Your task to perform on an android device: Search for apple airpods pro on target, select the first entry, add it to the cart, then select checkout. Image 0: 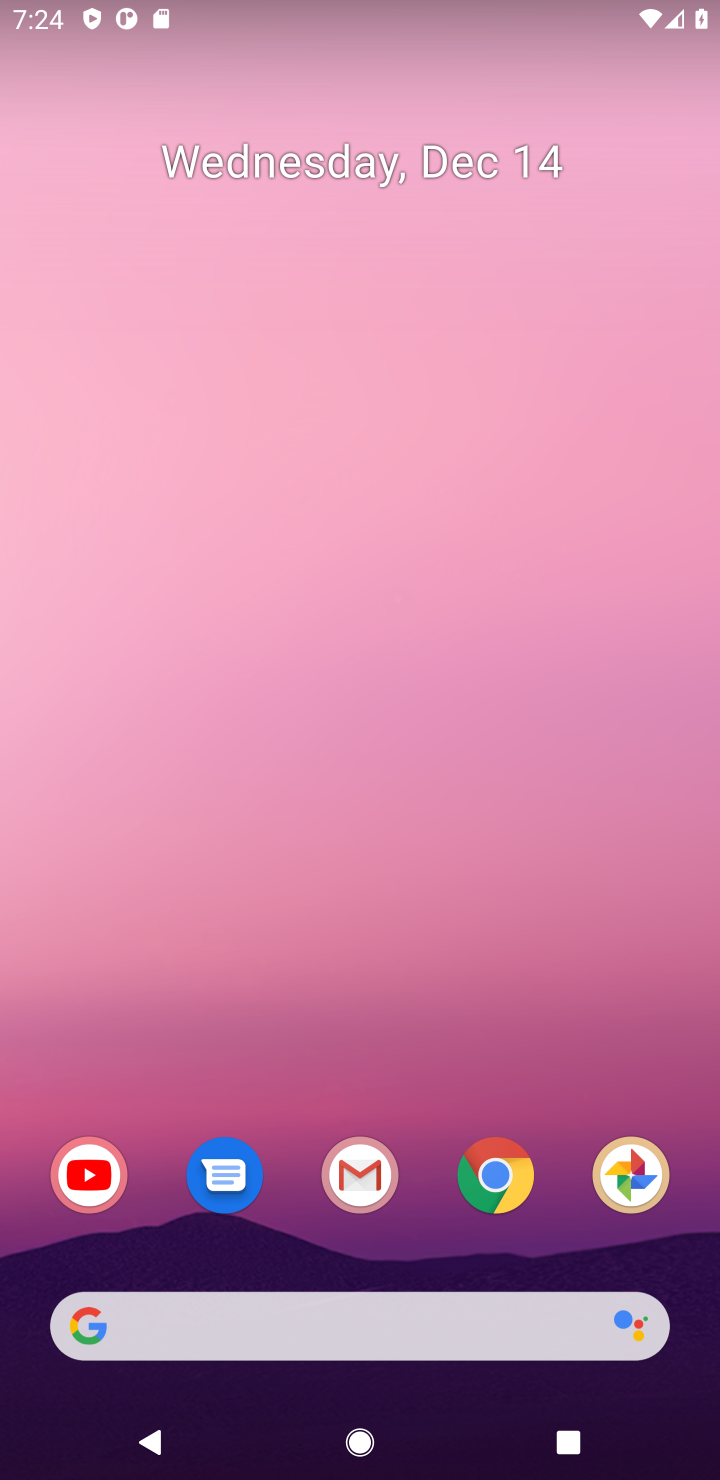
Step 0: click (503, 1188)
Your task to perform on an android device: Search for apple airpods pro on target, select the first entry, add it to the cart, then select checkout. Image 1: 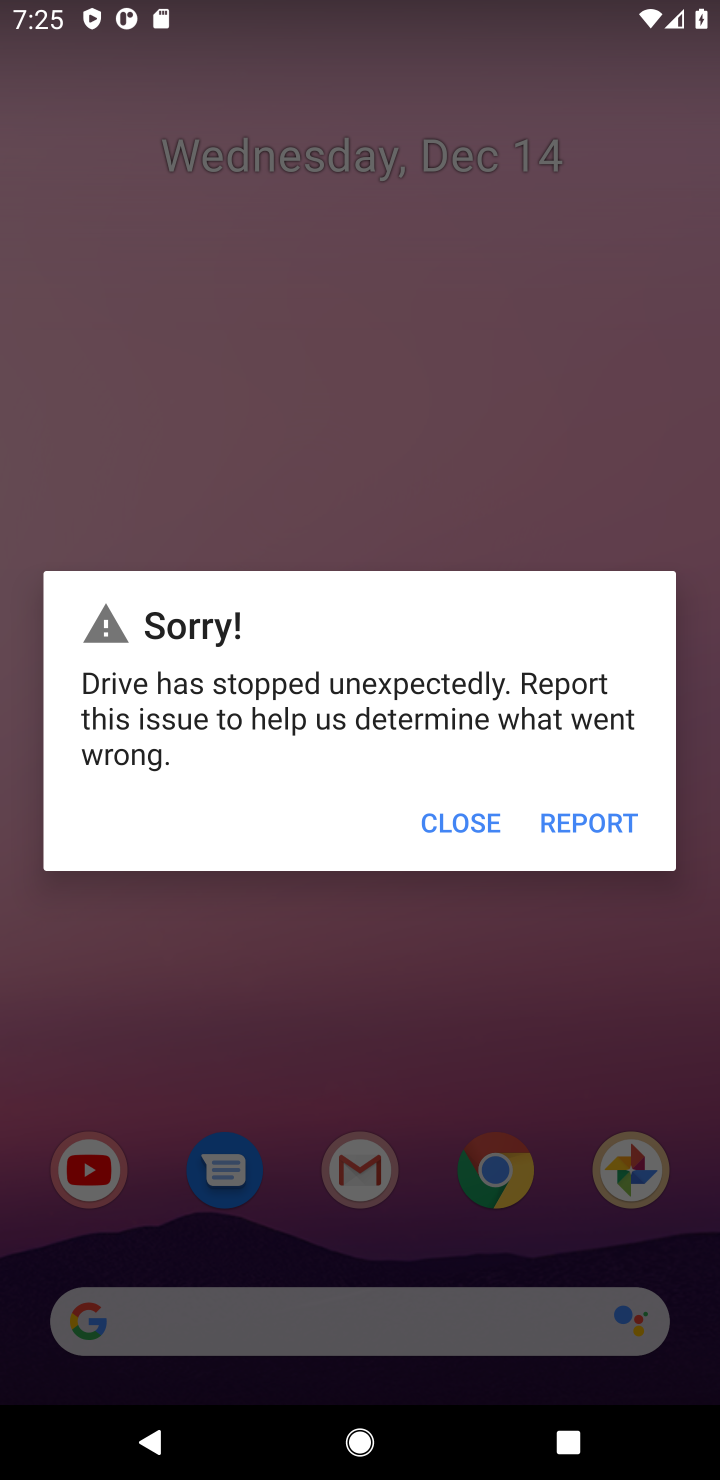
Step 1: click (485, 819)
Your task to perform on an android device: Search for apple airpods pro on target, select the first entry, add it to the cart, then select checkout. Image 2: 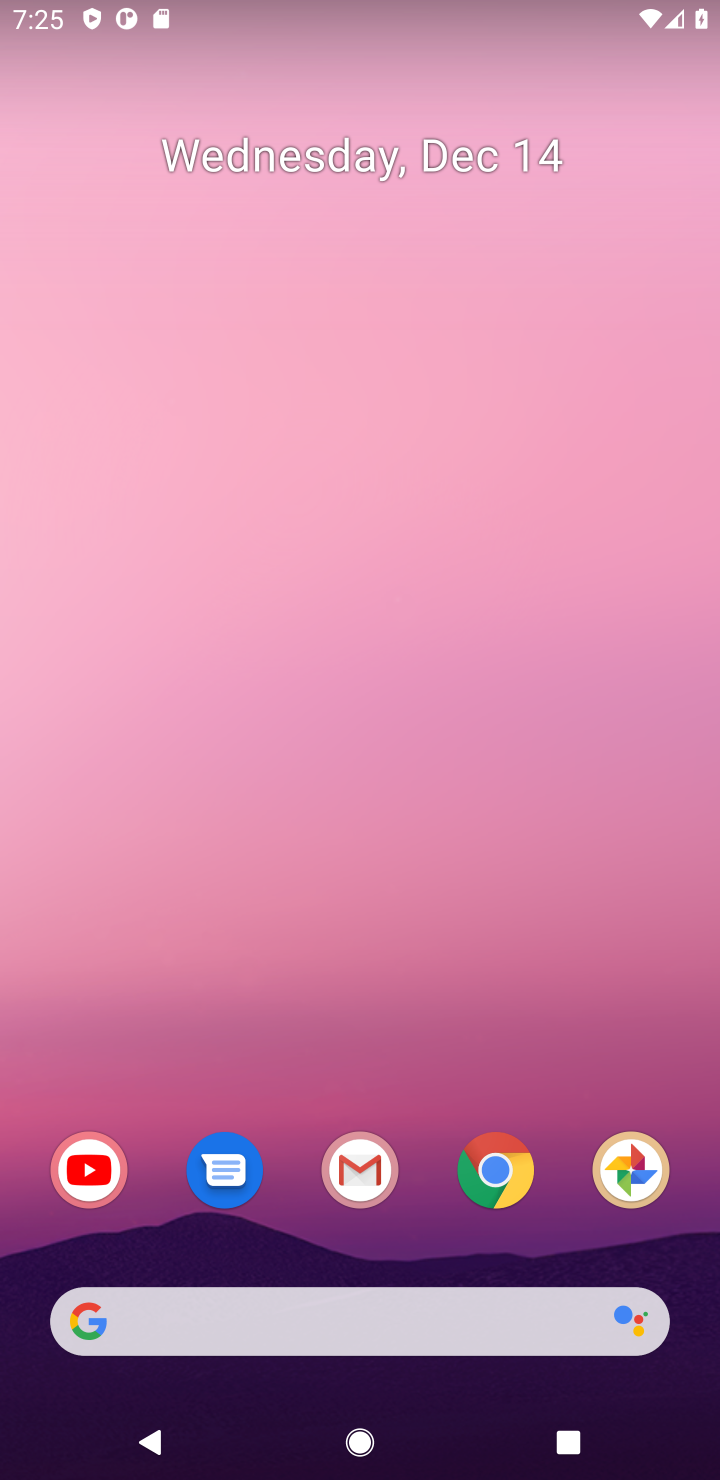
Step 2: click (497, 1166)
Your task to perform on an android device: Search for apple airpods pro on target, select the first entry, add it to the cart, then select checkout. Image 3: 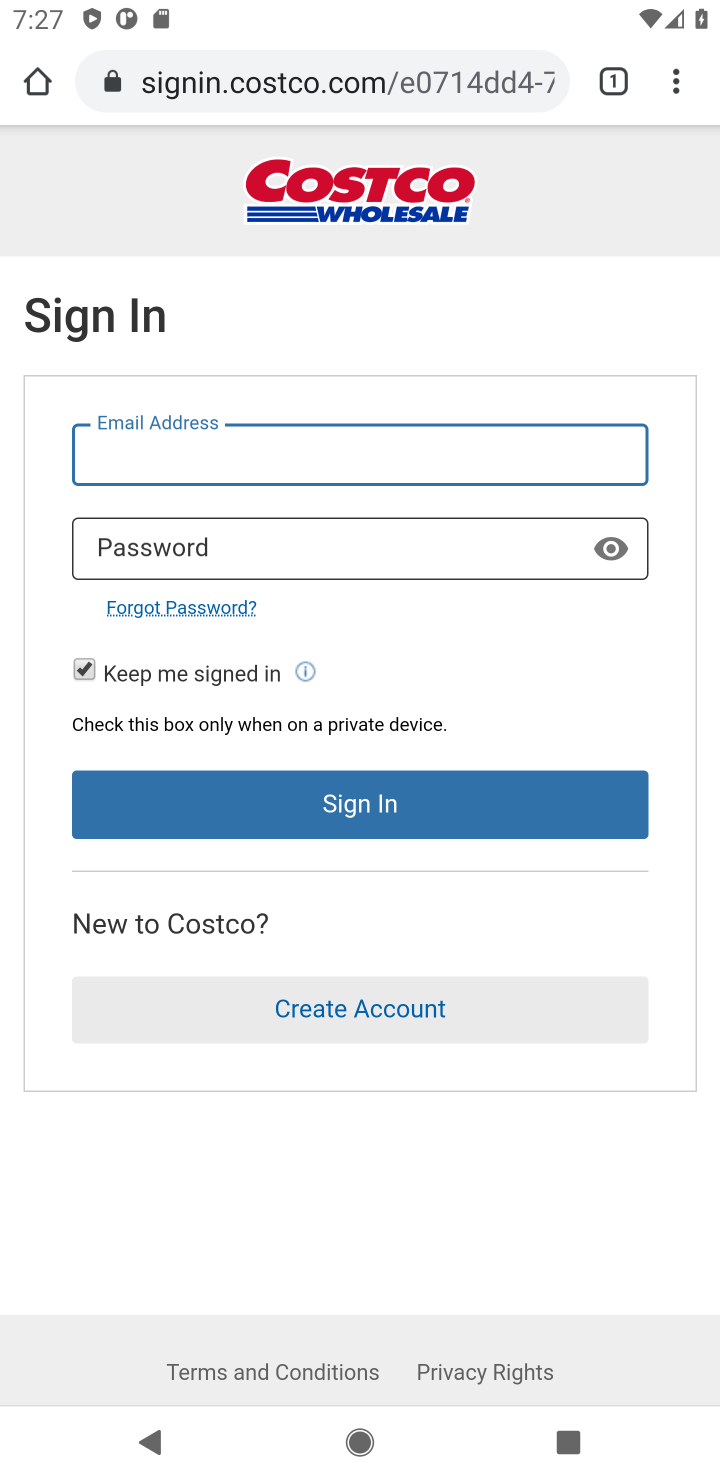
Step 3: click (306, 83)
Your task to perform on an android device: Search for apple airpods pro on target, select the first entry, add it to the cart, then select checkout. Image 4: 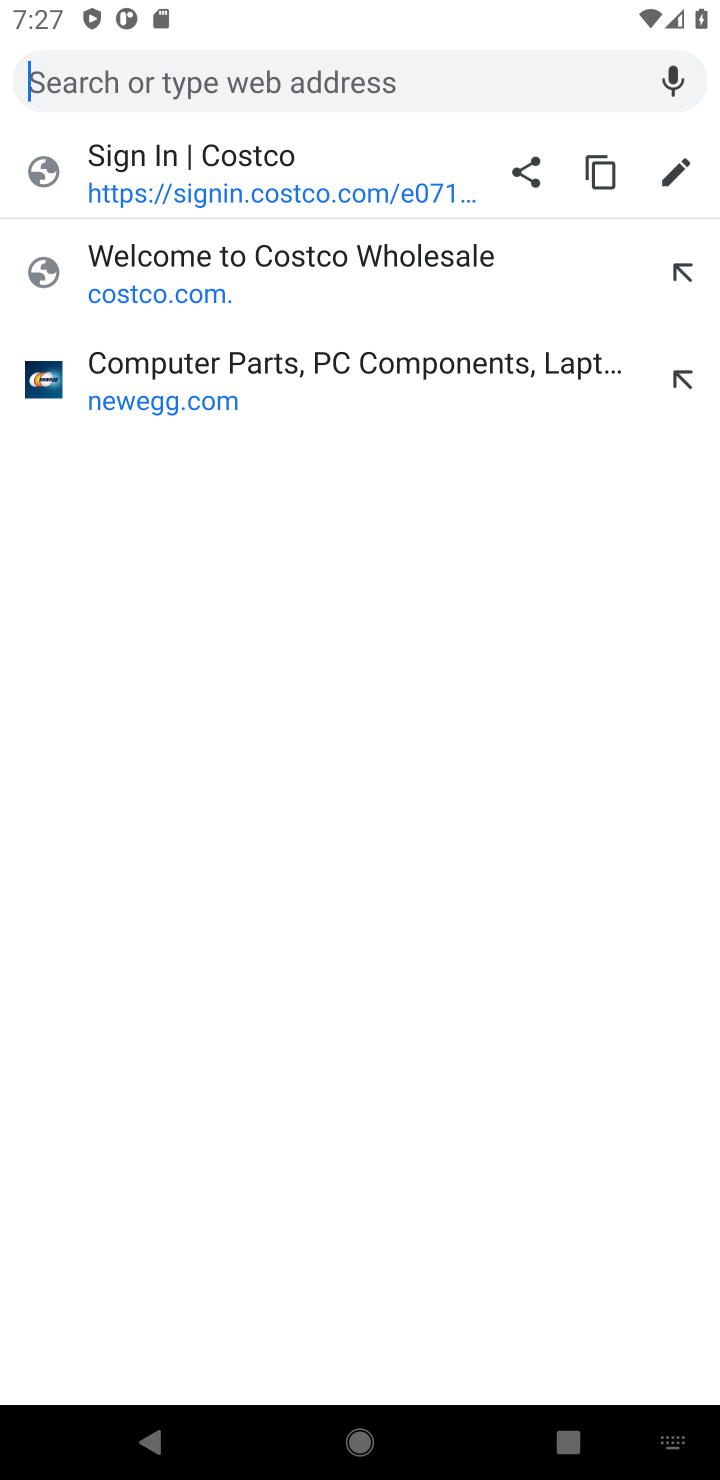
Step 4: click (353, 259)
Your task to perform on an android device: Search for apple airpods pro on target, select the first entry, add it to the cart, then select checkout. Image 5: 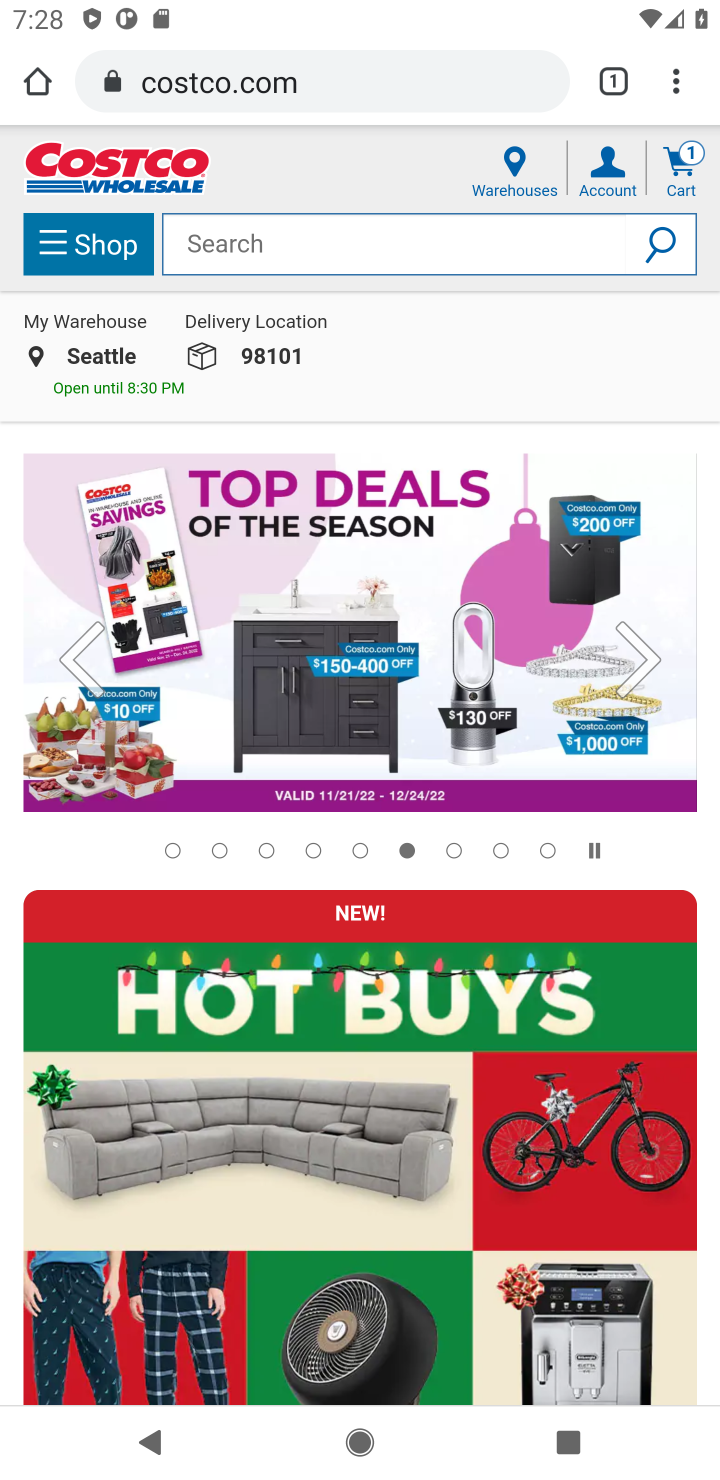
Step 5: click (275, 239)
Your task to perform on an android device: Search for apple airpods pro on target, select the first entry, add it to the cart, then select checkout. Image 6: 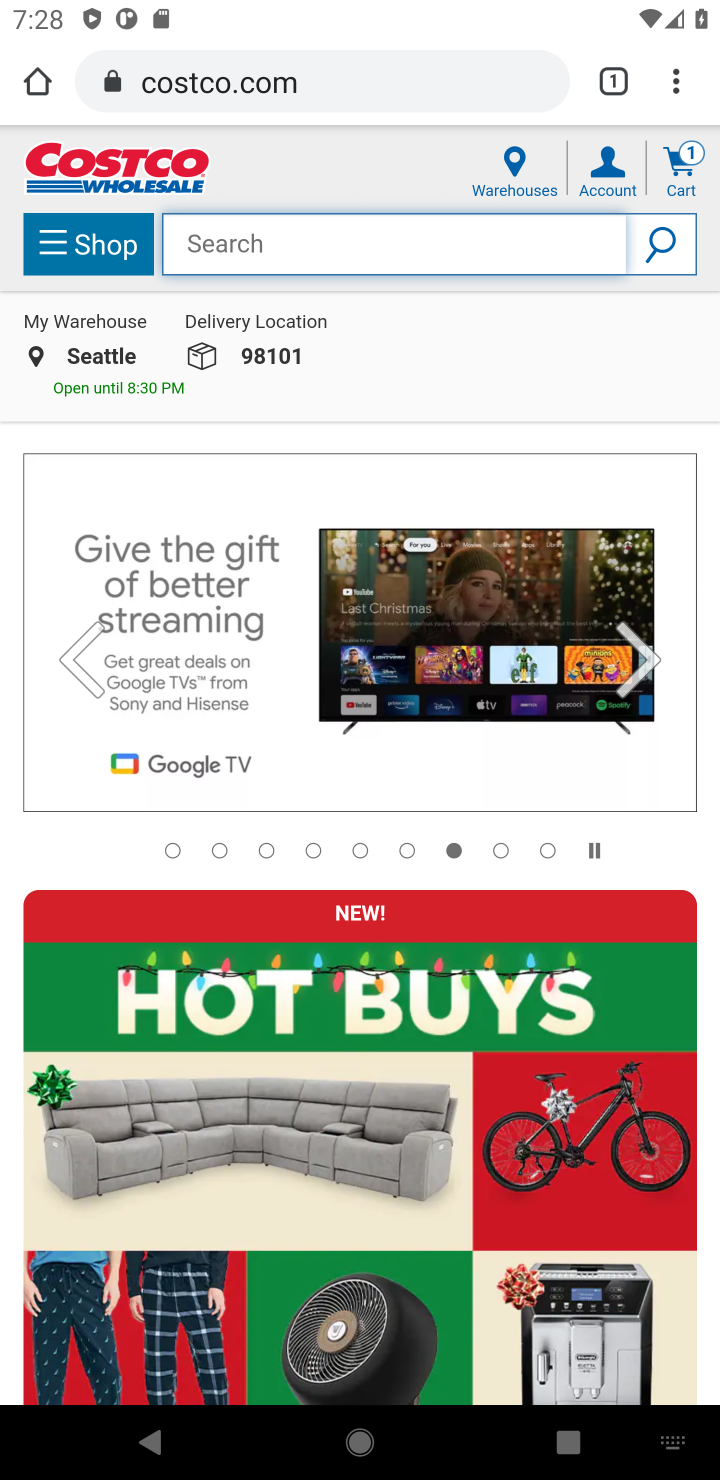
Step 6: type "apple airpods"
Your task to perform on an android device: Search for apple airpods pro on target, select the first entry, add it to the cart, then select checkout. Image 7: 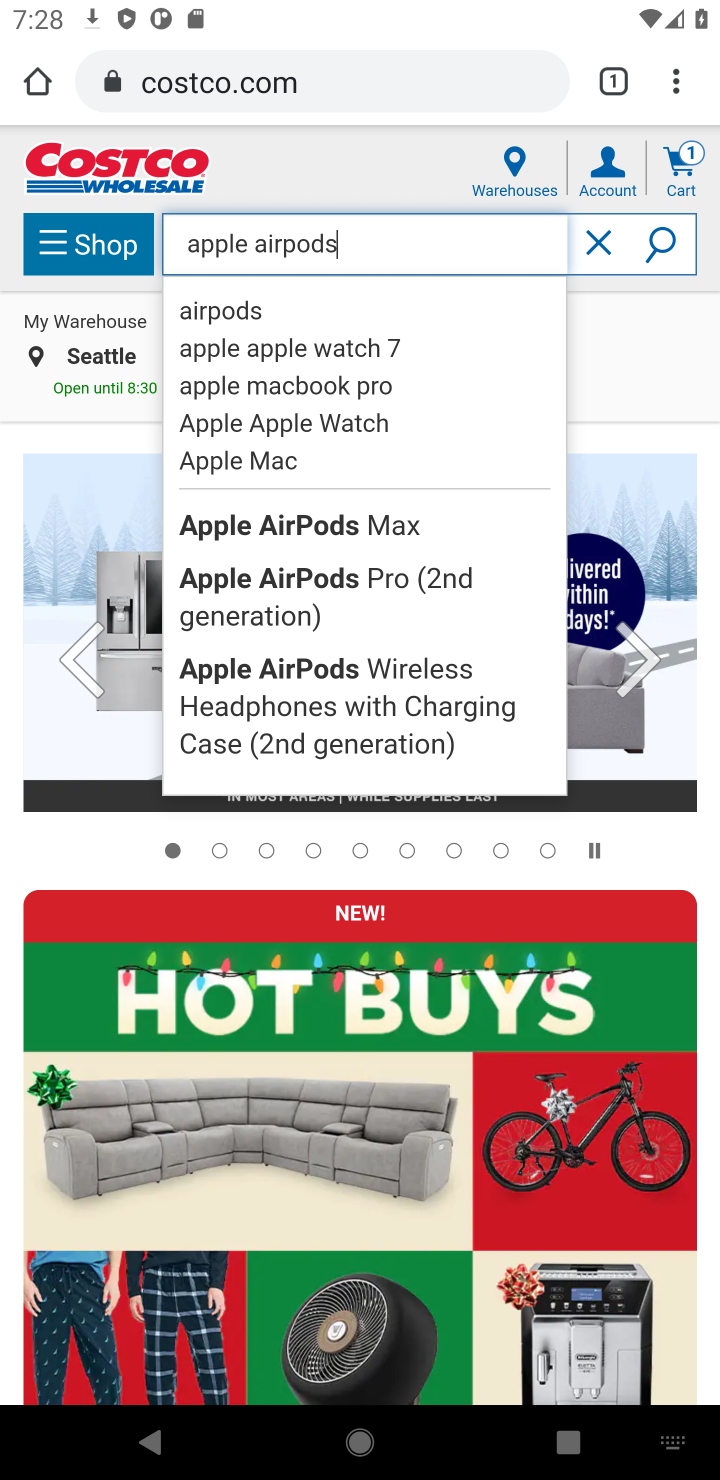
Step 7: click (275, 299)
Your task to perform on an android device: Search for apple airpods pro on target, select the first entry, add it to the cart, then select checkout. Image 8: 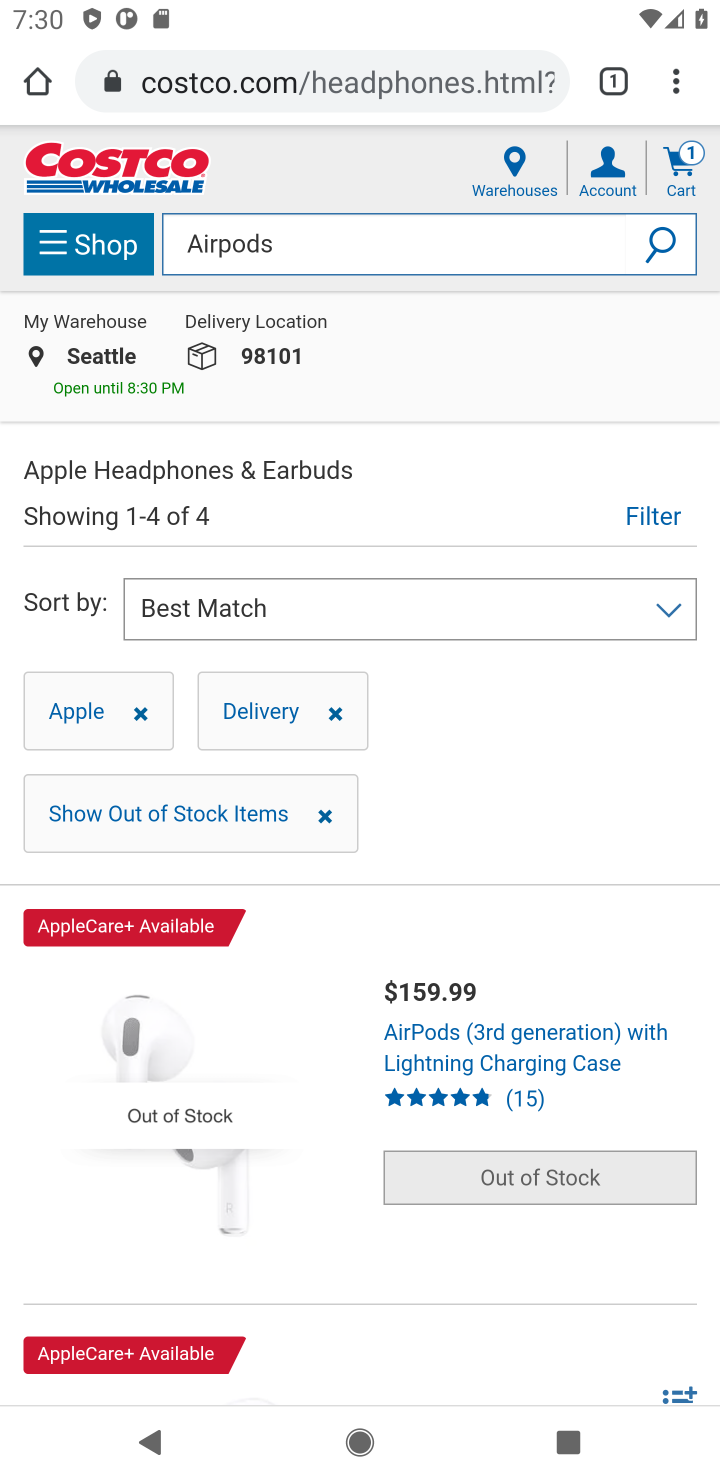
Step 8: click (328, 1048)
Your task to perform on an android device: Search for apple airpods pro on target, select the first entry, add it to the cart, then select checkout. Image 9: 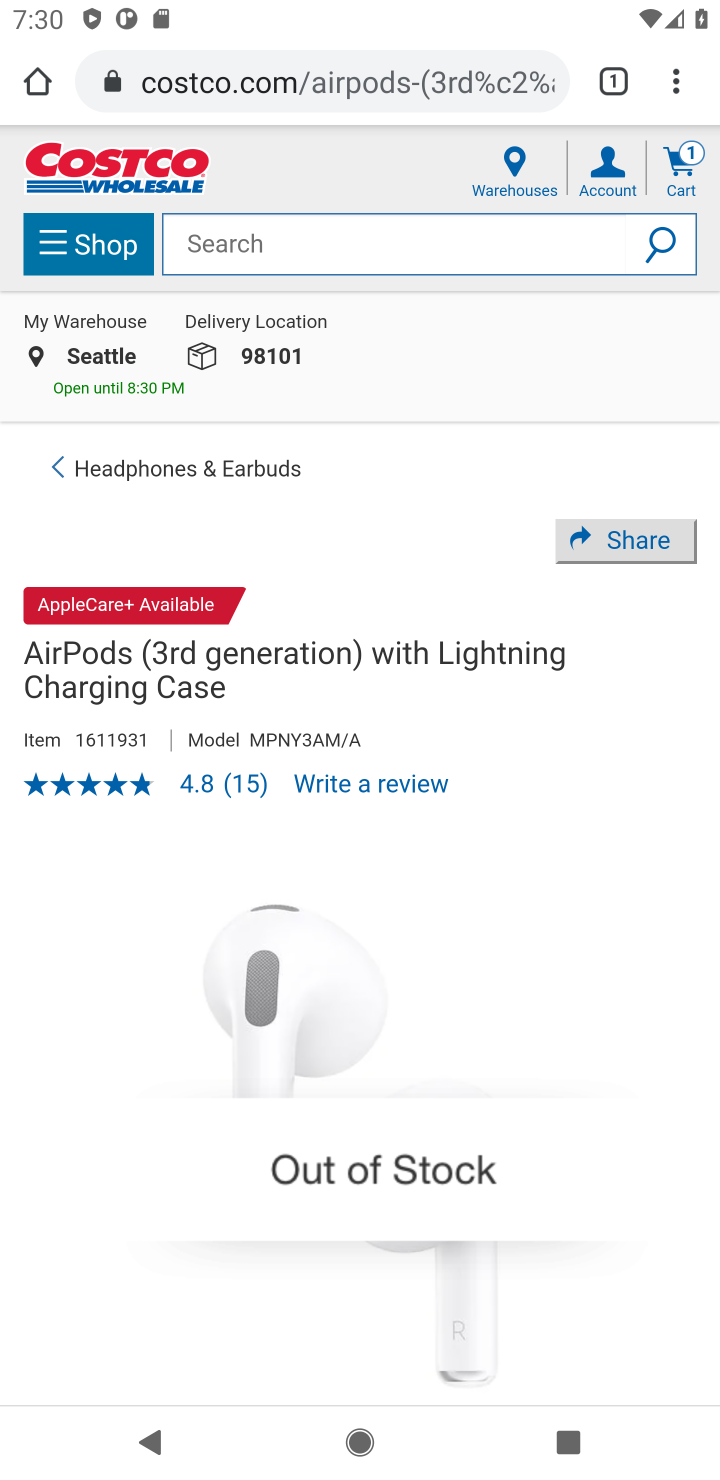
Step 9: task complete